Your task to perform on an android device: Open location settings Image 0: 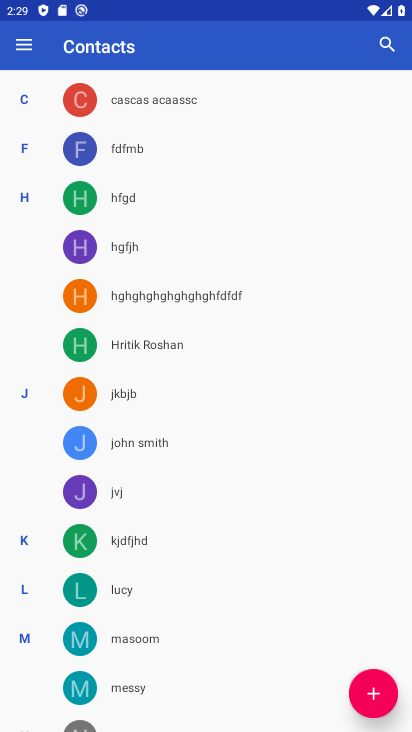
Step 0: press back button
Your task to perform on an android device: Open location settings Image 1: 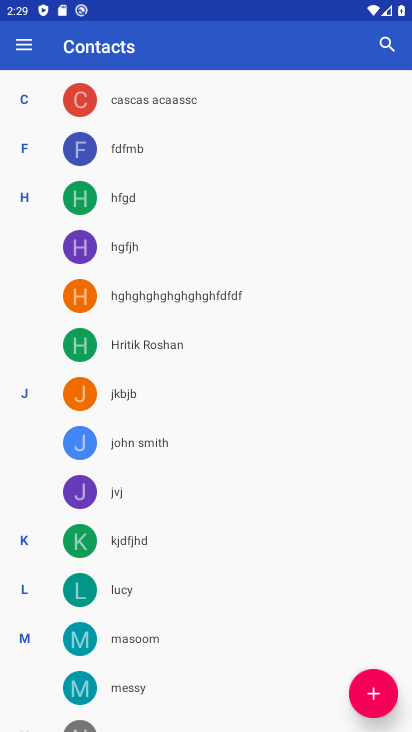
Step 1: press back button
Your task to perform on an android device: Open location settings Image 2: 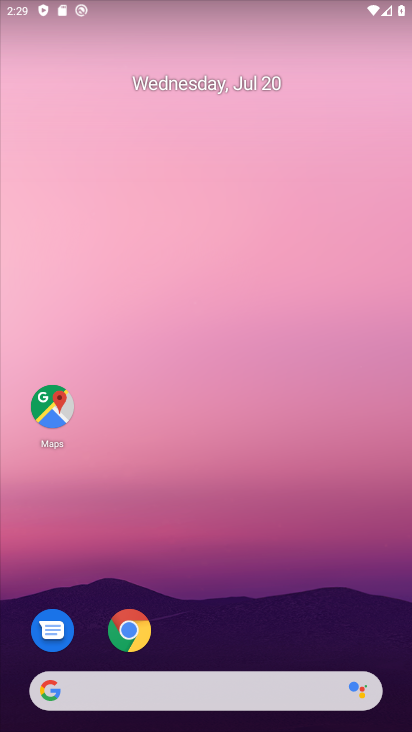
Step 2: drag from (260, 673) to (186, 110)
Your task to perform on an android device: Open location settings Image 3: 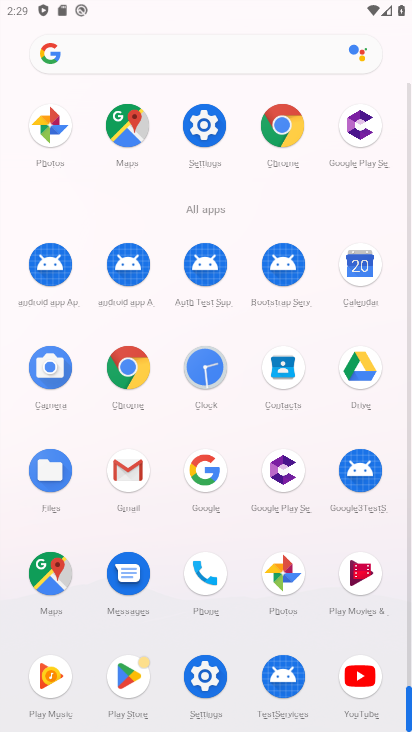
Step 3: click (203, 123)
Your task to perform on an android device: Open location settings Image 4: 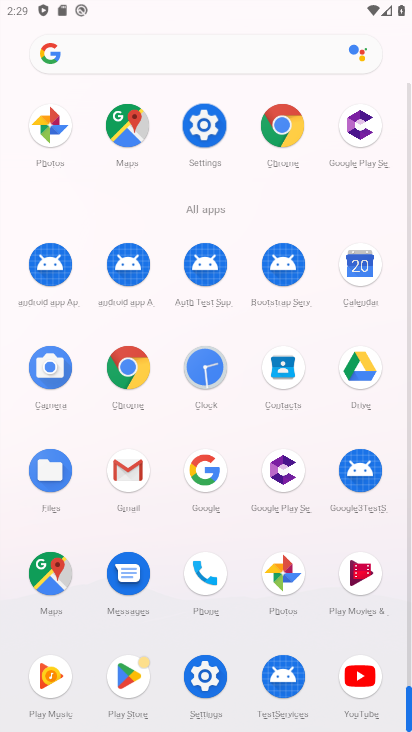
Step 4: click (203, 123)
Your task to perform on an android device: Open location settings Image 5: 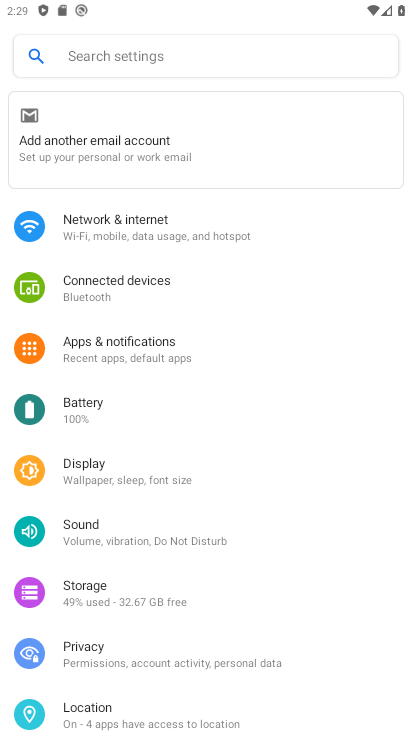
Step 5: drag from (123, 595) to (166, 290)
Your task to perform on an android device: Open location settings Image 6: 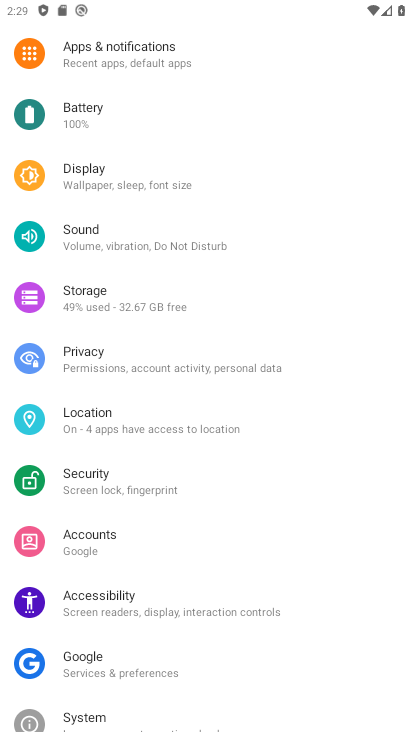
Step 6: click (93, 418)
Your task to perform on an android device: Open location settings Image 7: 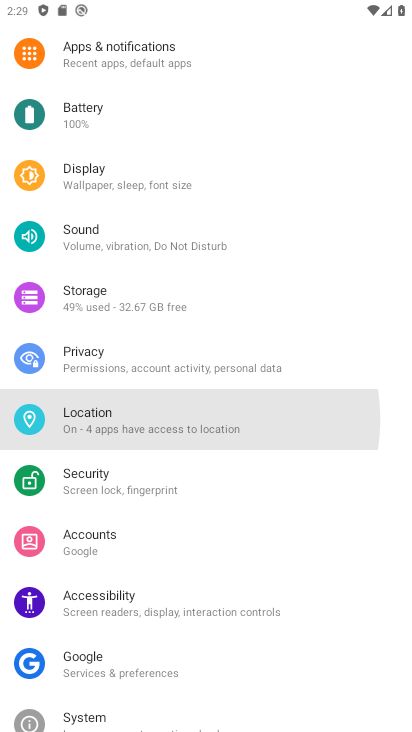
Step 7: click (93, 418)
Your task to perform on an android device: Open location settings Image 8: 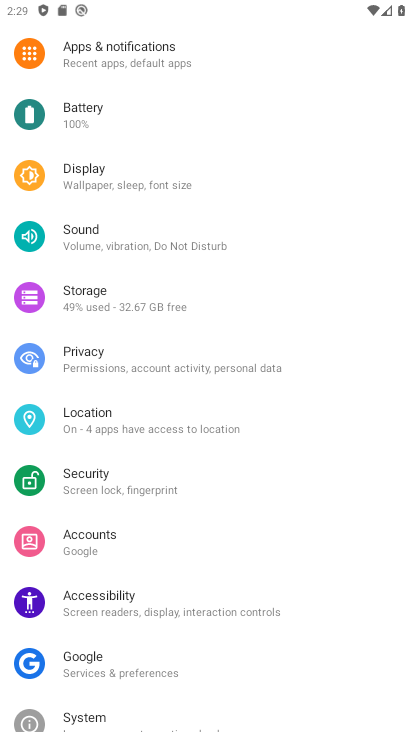
Step 8: click (93, 418)
Your task to perform on an android device: Open location settings Image 9: 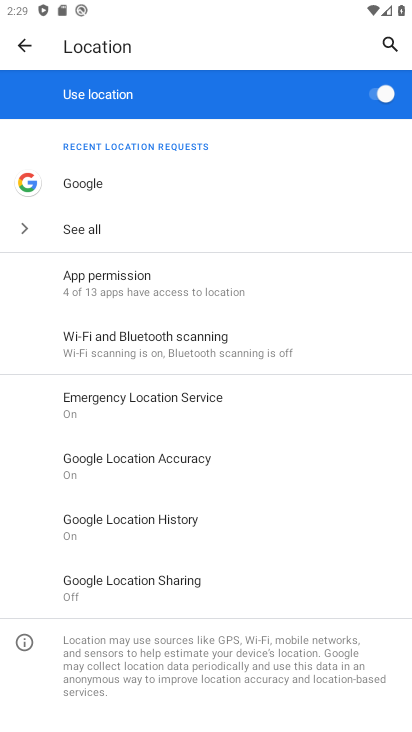
Step 9: task complete